Your task to perform on an android device: add a label to a message in the gmail app Image 0: 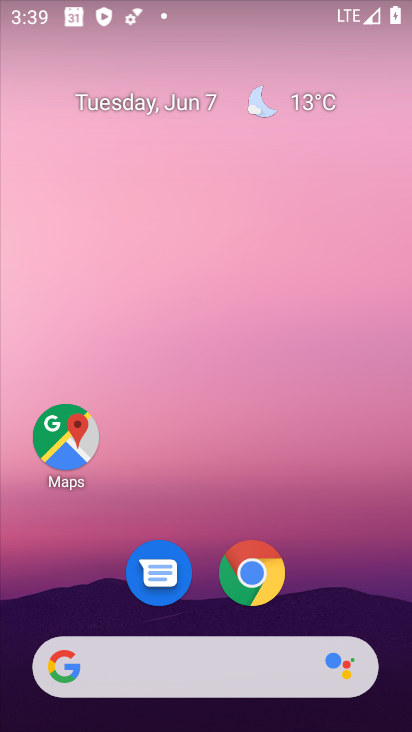
Step 0: drag from (381, 601) to (289, 115)
Your task to perform on an android device: add a label to a message in the gmail app Image 1: 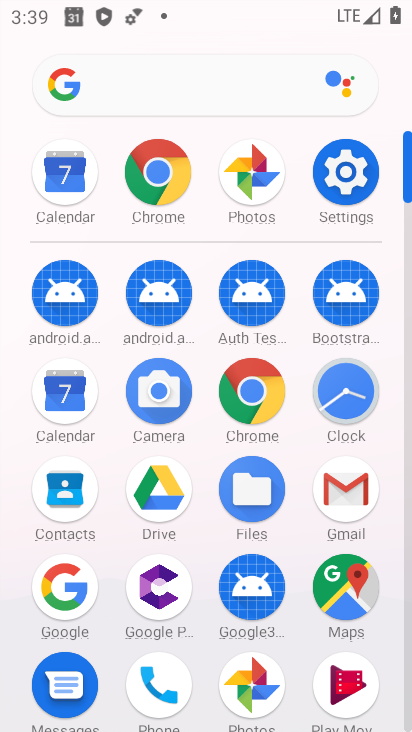
Step 1: click (362, 493)
Your task to perform on an android device: add a label to a message in the gmail app Image 2: 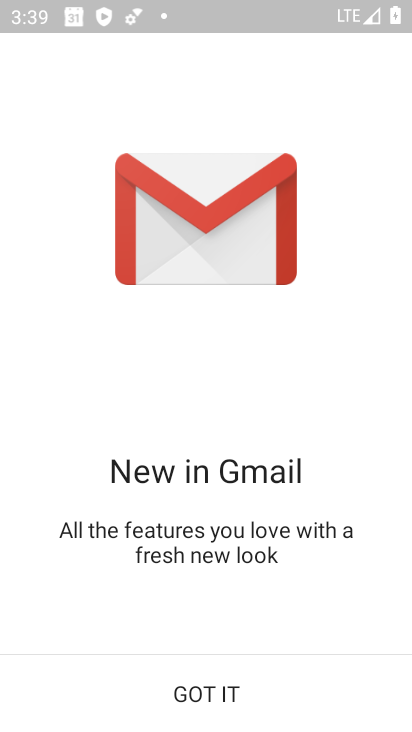
Step 2: click (285, 679)
Your task to perform on an android device: add a label to a message in the gmail app Image 3: 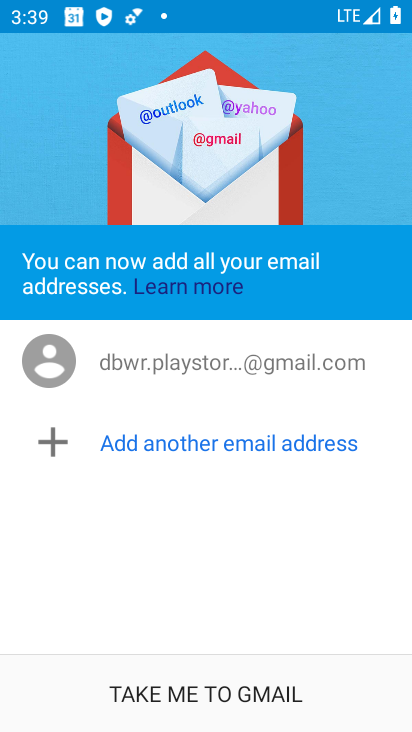
Step 3: click (285, 679)
Your task to perform on an android device: add a label to a message in the gmail app Image 4: 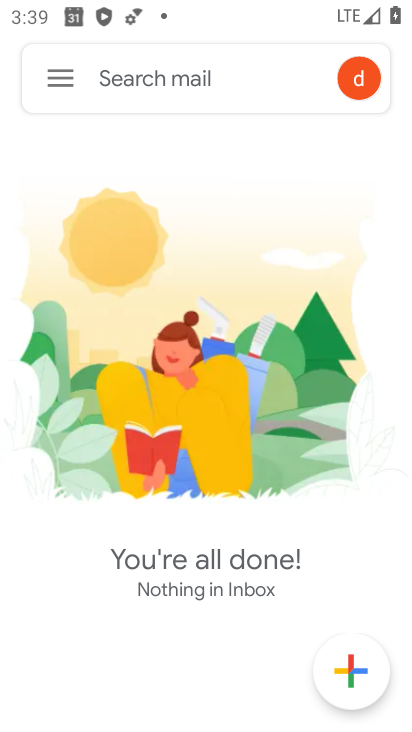
Step 4: task complete